Your task to perform on an android device: toggle airplane mode Image 0: 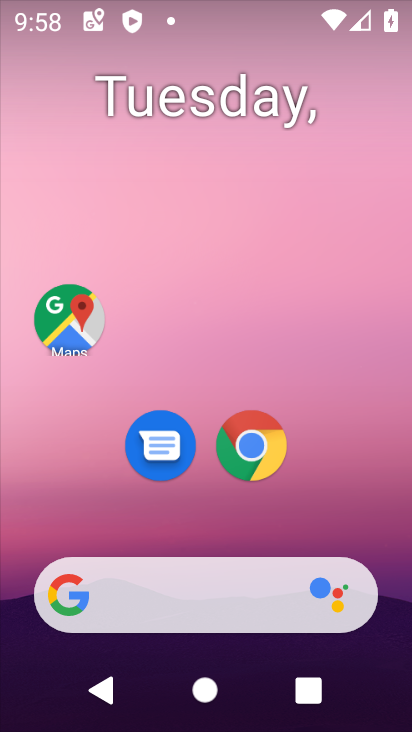
Step 0: drag from (364, 525) to (283, 168)
Your task to perform on an android device: toggle airplane mode Image 1: 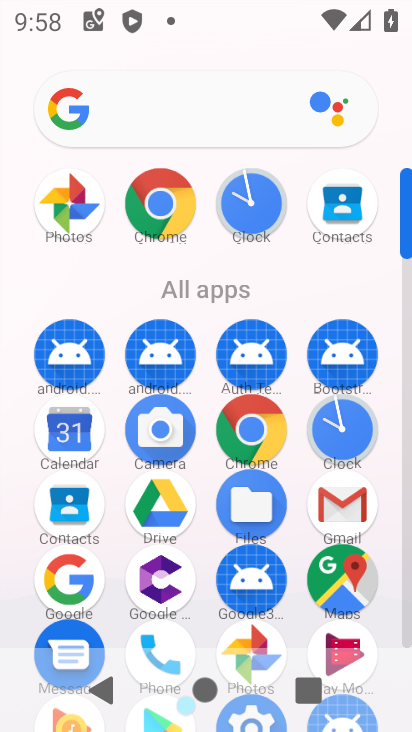
Step 1: click (407, 640)
Your task to perform on an android device: toggle airplane mode Image 2: 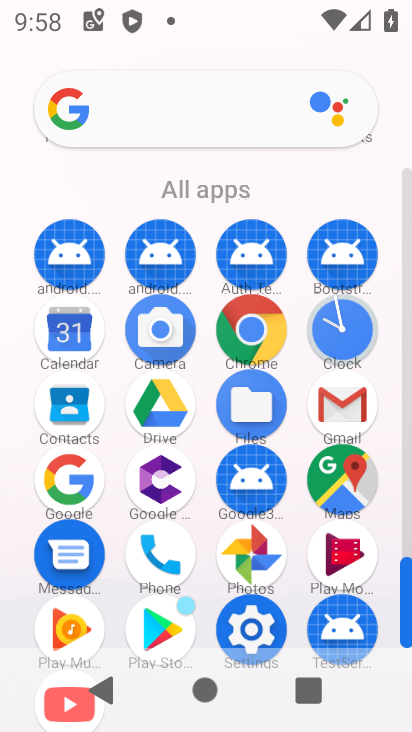
Step 2: click (236, 624)
Your task to perform on an android device: toggle airplane mode Image 3: 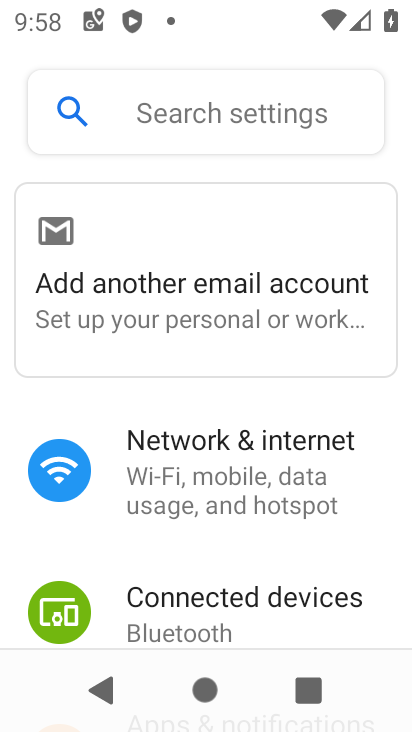
Step 3: click (236, 503)
Your task to perform on an android device: toggle airplane mode Image 4: 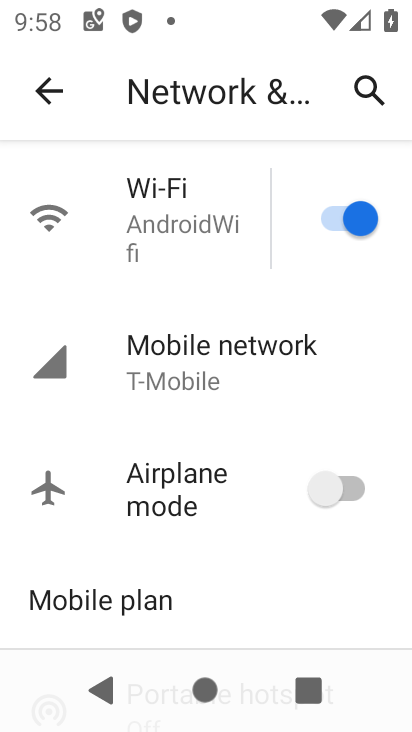
Step 4: click (362, 491)
Your task to perform on an android device: toggle airplane mode Image 5: 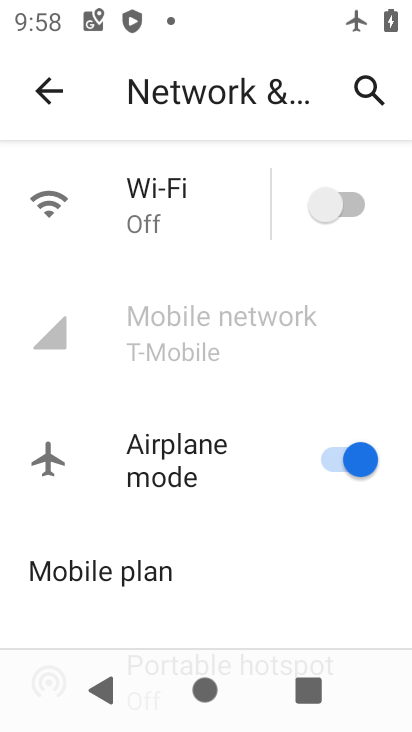
Step 5: task complete